Your task to perform on an android device: Go to accessibility settings Image 0: 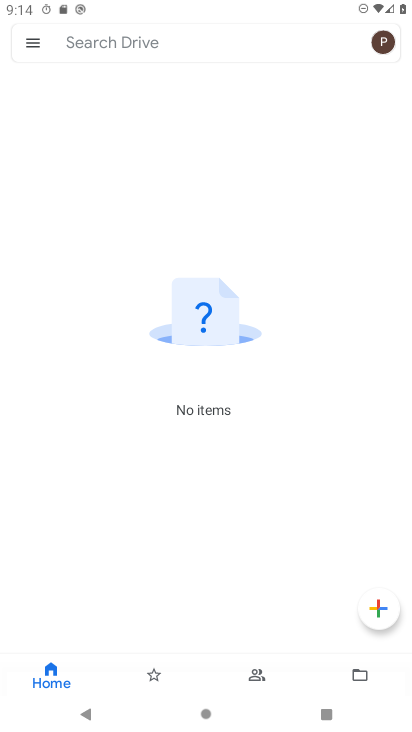
Step 0: press back button
Your task to perform on an android device: Go to accessibility settings Image 1: 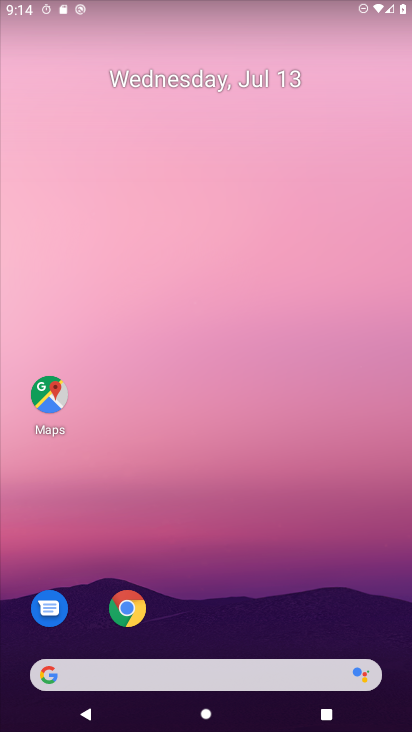
Step 1: drag from (211, 551) to (146, 238)
Your task to perform on an android device: Go to accessibility settings Image 2: 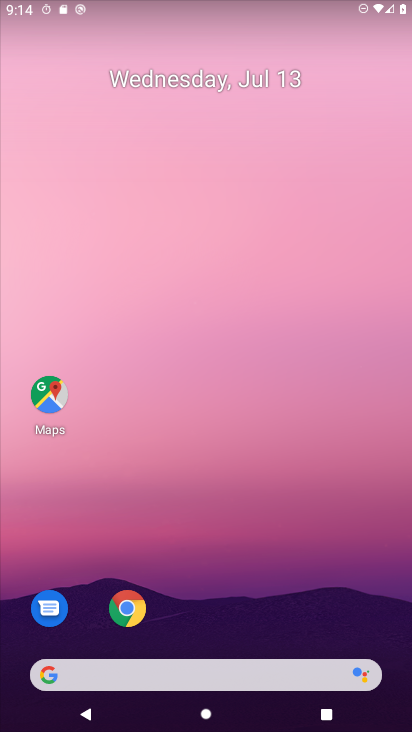
Step 2: drag from (257, 665) to (188, 283)
Your task to perform on an android device: Go to accessibility settings Image 3: 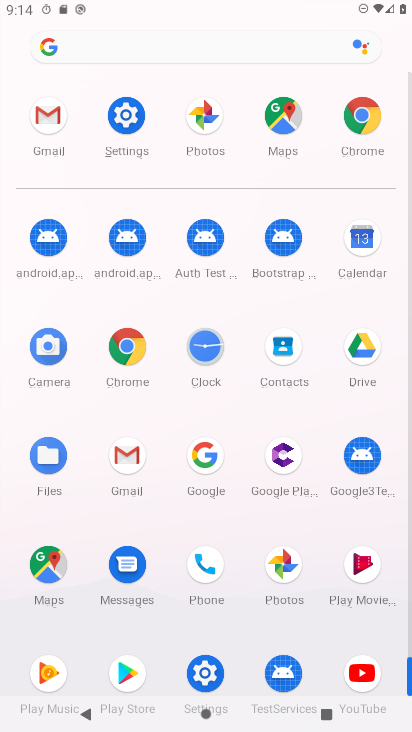
Step 3: click (206, 686)
Your task to perform on an android device: Go to accessibility settings Image 4: 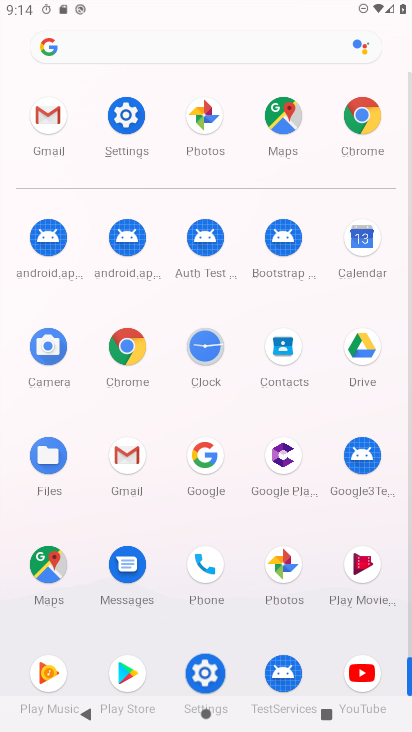
Step 4: click (206, 686)
Your task to perform on an android device: Go to accessibility settings Image 5: 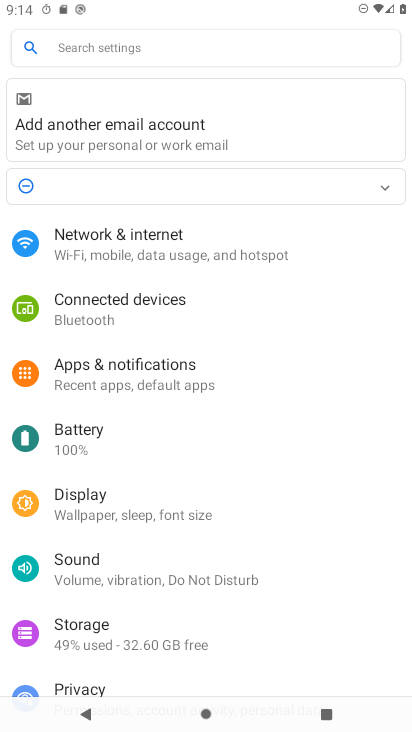
Step 5: click (222, 672)
Your task to perform on an android device: Go to accessibility settings Image 6: 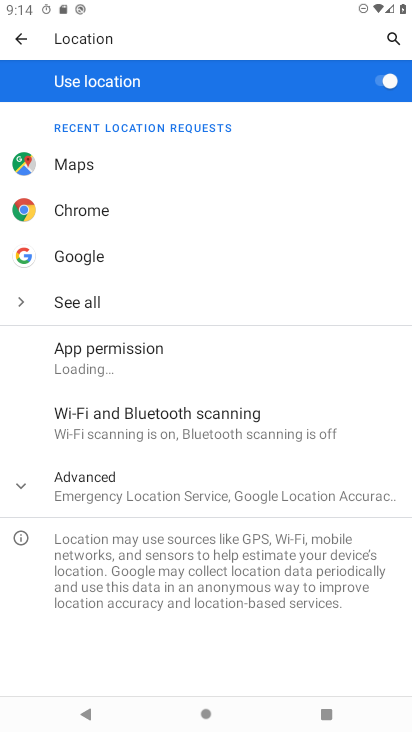
Step 6: click (27, 38)
Your task to perform on an android device: Go to accessibility settings Image 7: 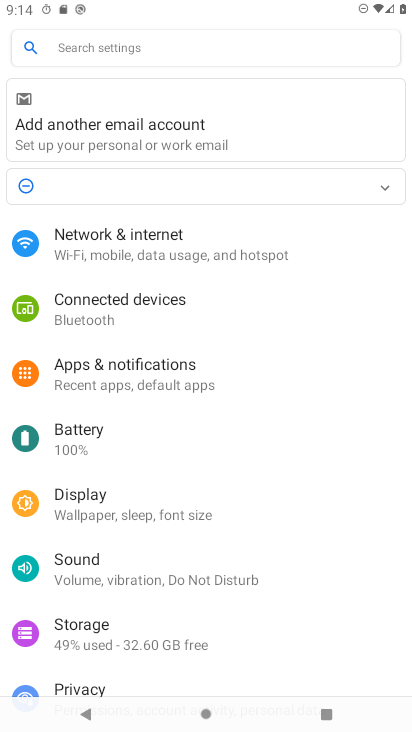
Step 7: drag from (166, 514) to (166, 286)
Your task to perform on an android device: Go to accessibility settings Image 8: 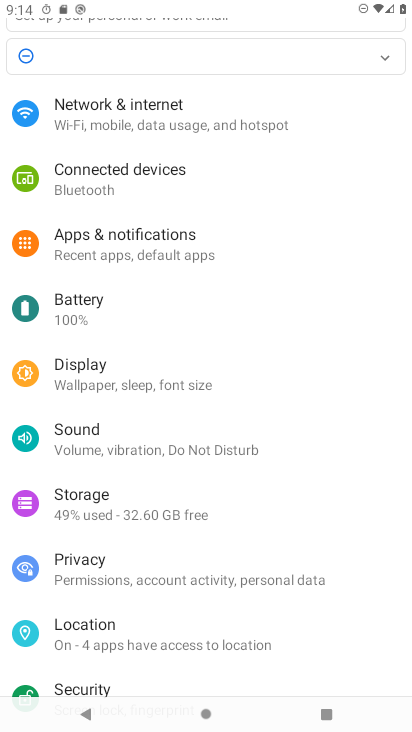
Step 8: drag from (213, 495) to (188, 331)
Your task to perform on an android device: Go to accessibility settings Image 9: 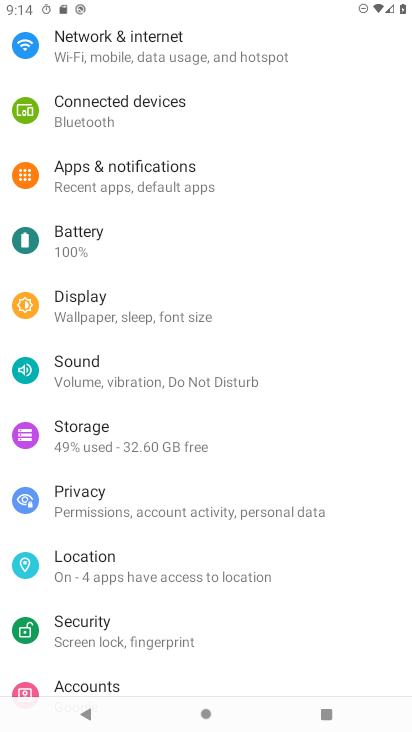
Step 9: drag from (141, 542) to (153, 224)
Your task to perform on an android device: Go to accessibility settings Image 10: 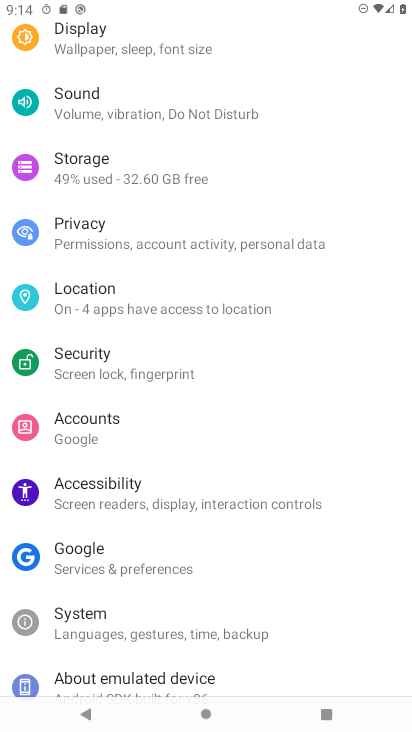
Step 10: click (113, 487)
Your task to perform on an android device: Go to accessibility settings Image 11: 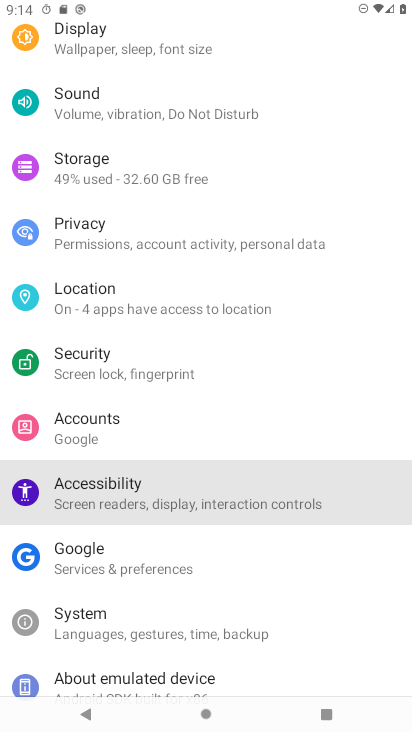
Step 11: click (112, 486)
Your task to perform on an android device: Go to accessibility settings Image 12: 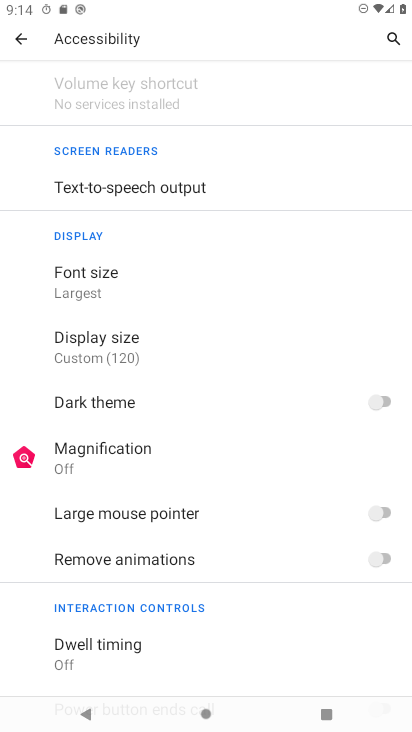
Step 12: task complete